Your task to perform on an android device: toggle sleep mode Image 0: 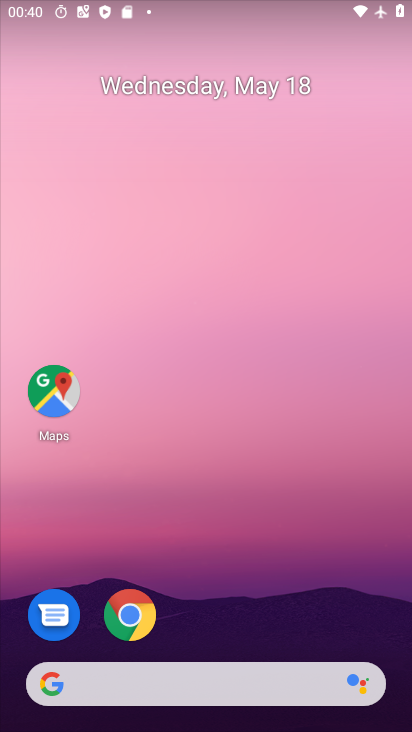
Step 0: drag from (209, 625) to (211, 210)
Your task to perform on an android device: toggle sleep mode Image 1: 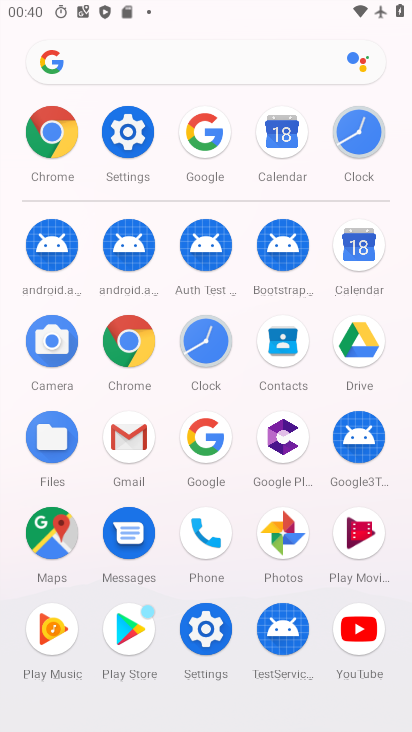
Step 1: click (108, 146)
Your task to perform on an android device: toggle sleep mode Image 2: 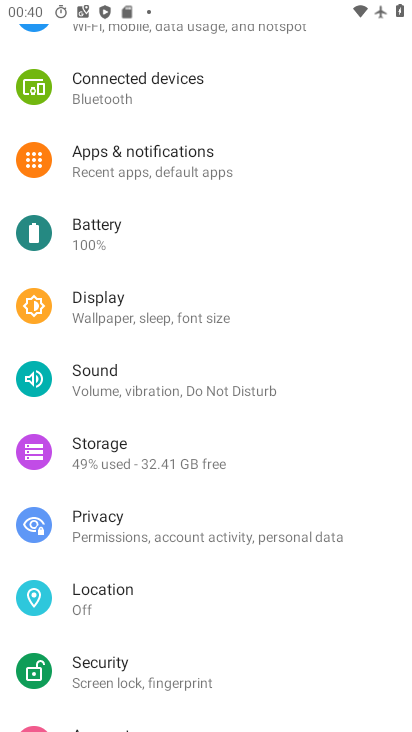
Step 2: click (135, 305)
Your task to perform on an android device: toggle sleep mode Image 3: 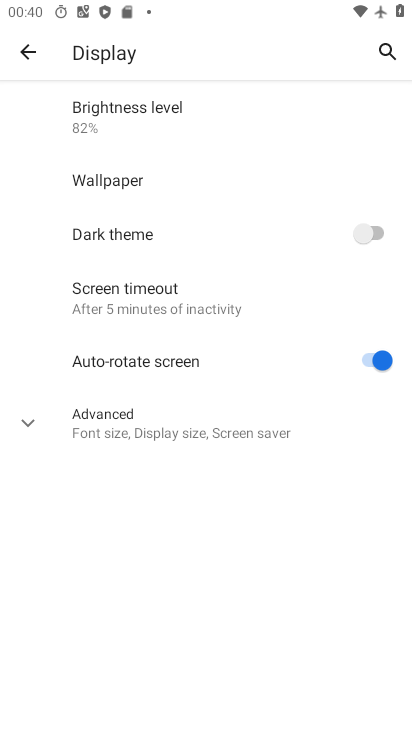
Step 3: click (148, 296)
Your task to perform on an android device: toggle sleep mode Image 4: 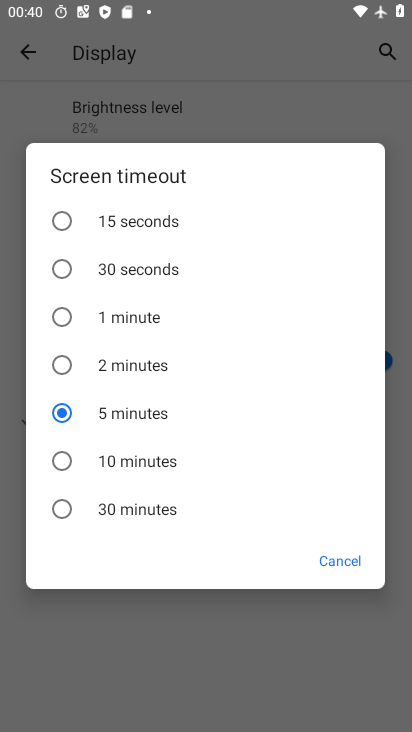
Step 4: click (148, 296)
Your task to perform on an android device: toggle sleep mode Image 5: 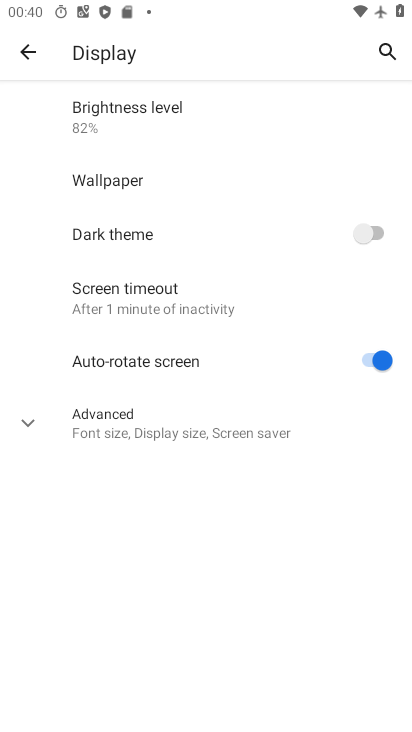
Step 5: task complete